Your task to perform on an android device: Open a new Chrome incognito tab Image 0: 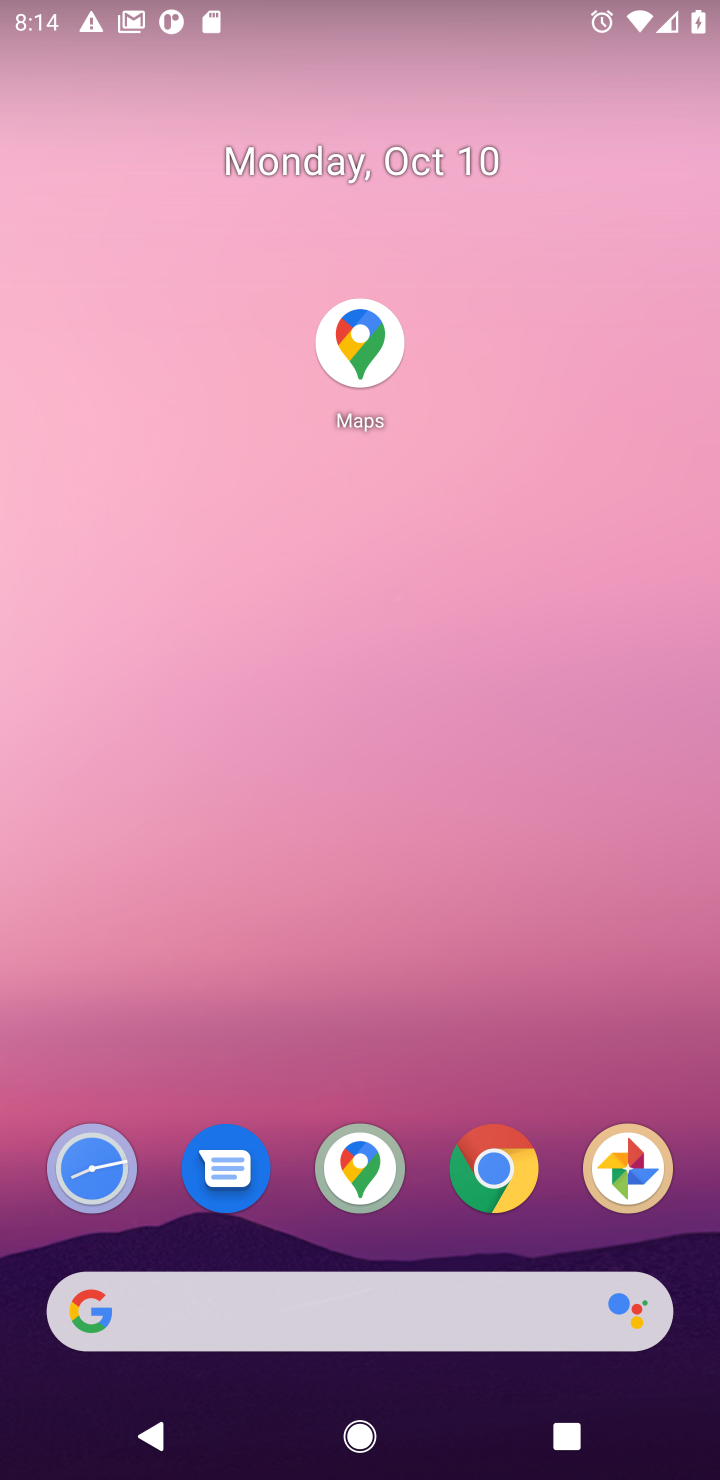
Step 0: click (482, 1177)
Your task to perform on an android device: Open a new Chrome incognito tab Image 1: 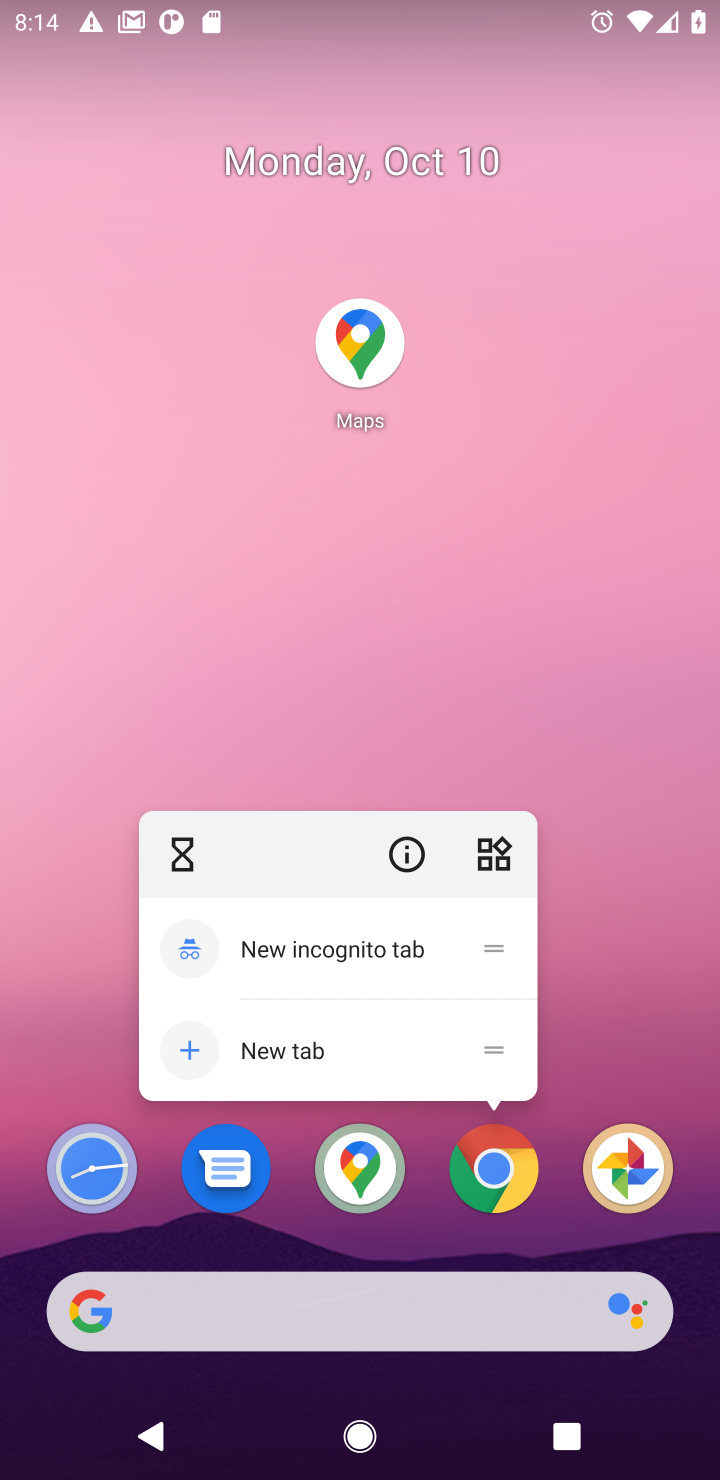
Step 1: click (486, 1179)
Your task to perform on an android device: Open a new Chrome incognito tab Image 2: 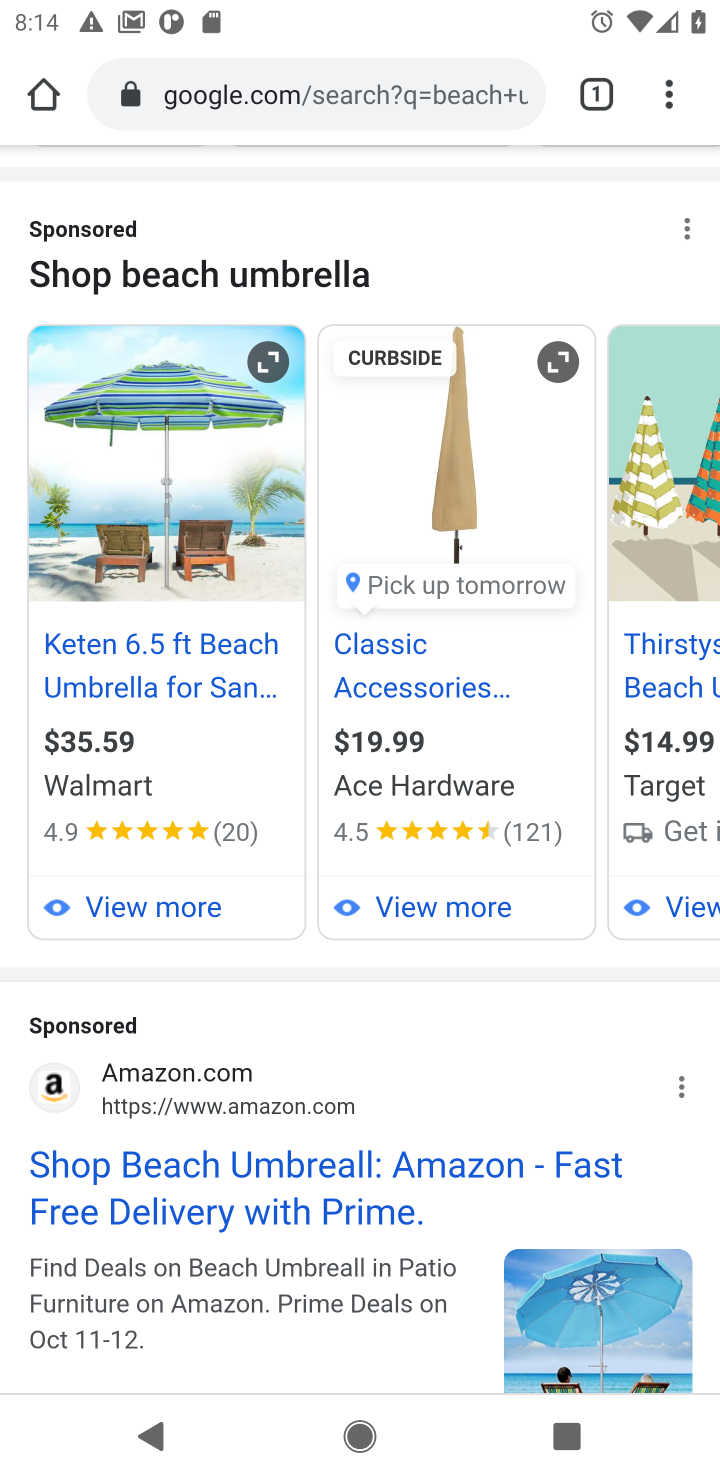
Step 2: task complete